Your task to perform on an android device: Open display settings Image 0: 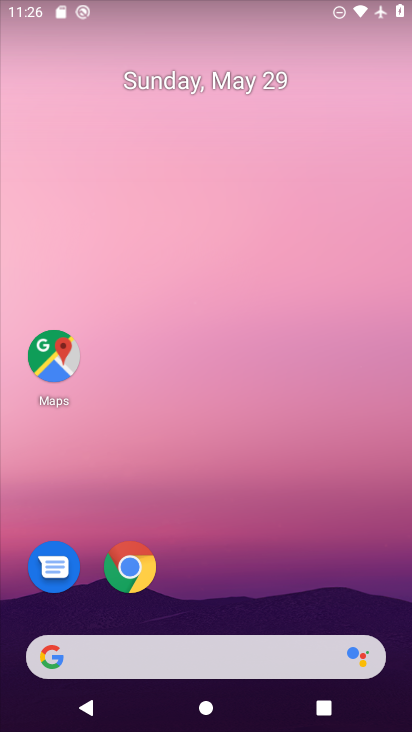
Step 0: drag from (396, 626) to (292, 54)
Your task to perform on an android device: Open display settings Image 1: 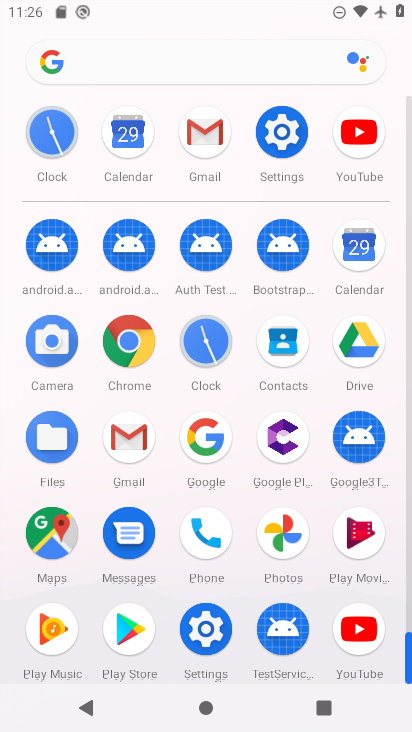
Step 1: click (408, 617)
Your task to perform on an android device: Open display settings Image 2: 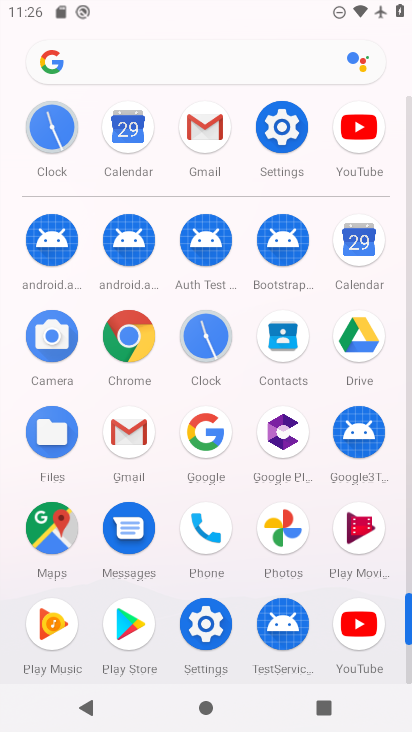
Step 2: click (207, 625)
Your task to perform on an android device: Open display settings Image 3: 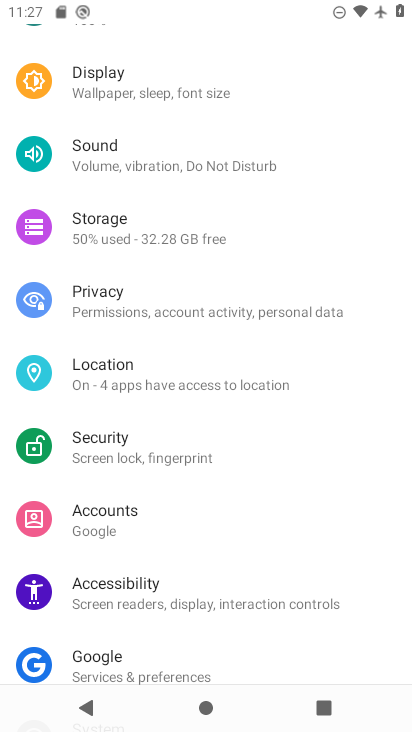
Step 3: click (84, 78)
Your task to perform on an android device: Open display settings Image 4: 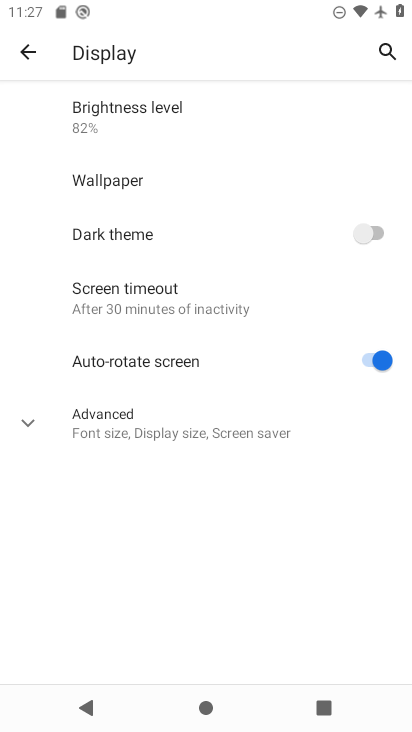
Step 4: click (27, 428)
Your task to perform on an android device: Open display settings Image 5: 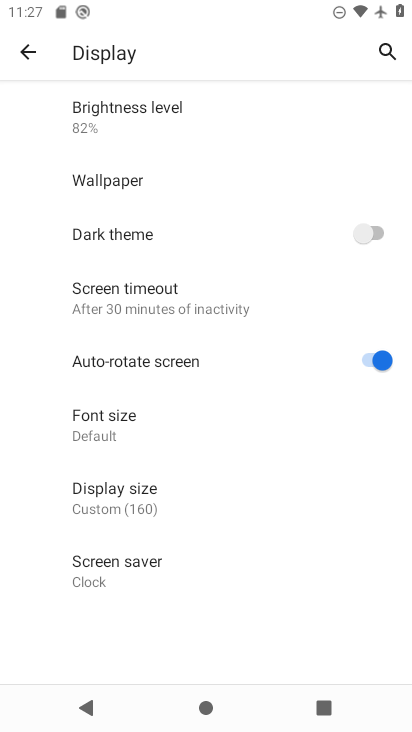
Step 5: task complete